Your task to perform on an android device: turn notification dots on Image 0: 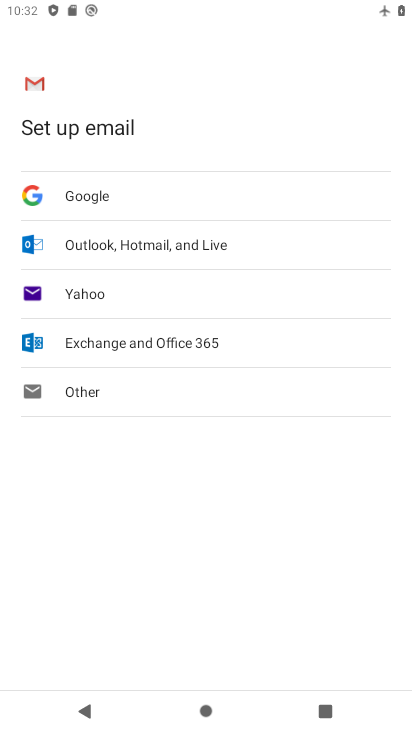
Step 0: press home button
Your task to perform on an android device: turn notification dots on Image 1: 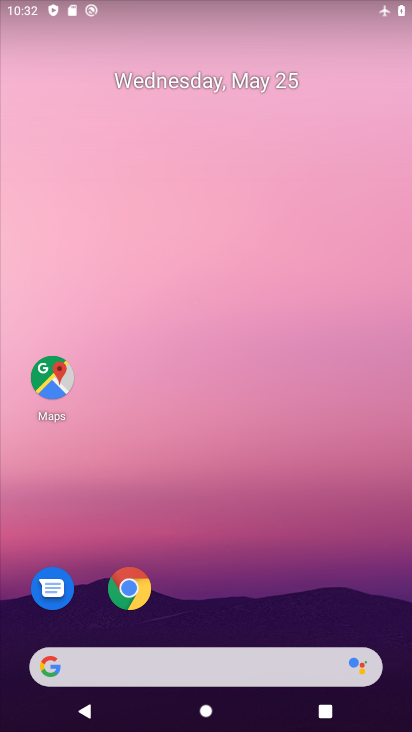
Step 1: drag from (199, 496) to (242, 168)
Your task to perform on an android device: turn notification dots on Image 2: 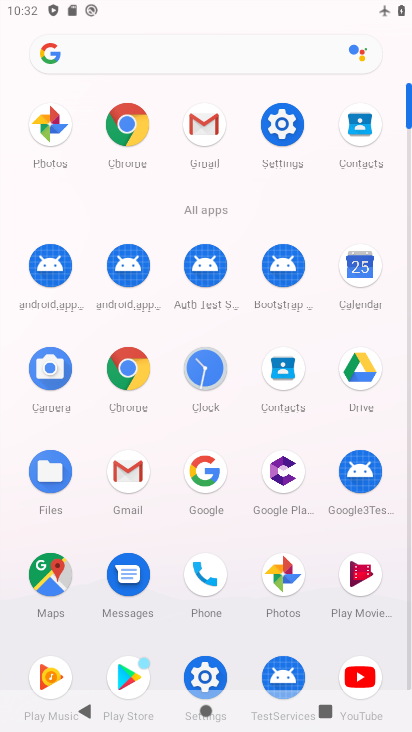
Step 2: click (287, 139)
Your task to perform on an android device: turn notification dots on Image 3: 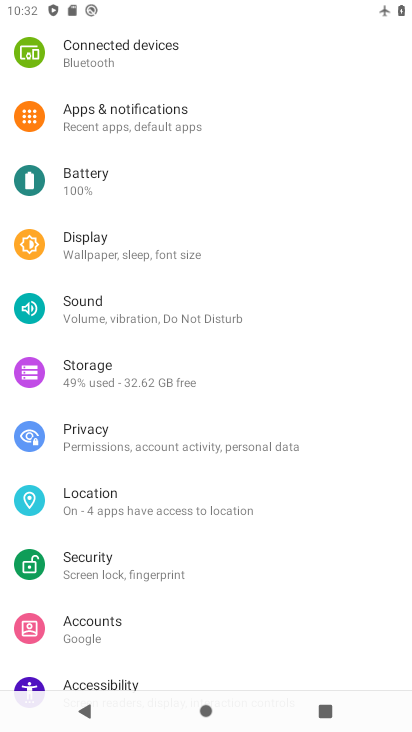
Step 3: click (175, 118)
Your task to perform on an android device: turn notification dots on Image 4: 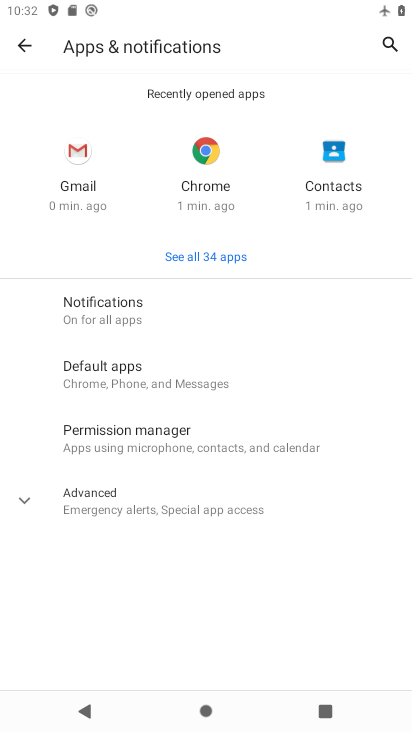
Step 4: click (123, 312)
Your task to perform on an android device: turn notification dots on Image 5: 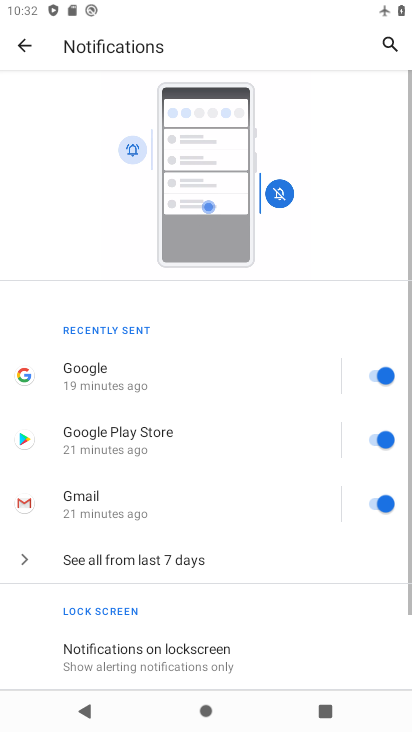
Step 5: drag from (201, 615) to (304, 137)
Your task to perform on an android device: turn notification dots on Image 6: 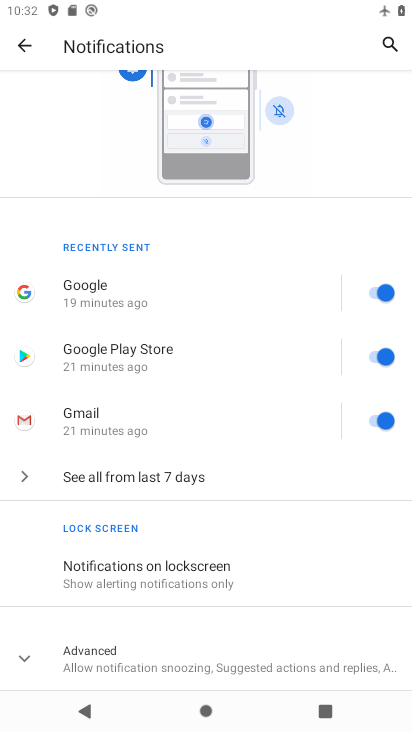
Step 6: click (135, 649)
Your task to perform on an android device: turn notification dots on Image 7: 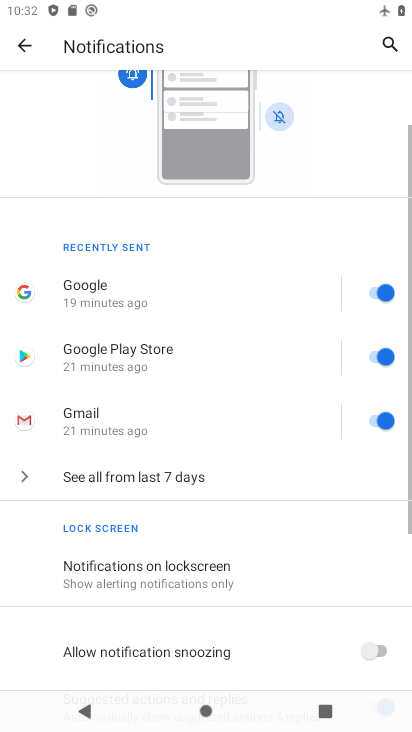
Step 7: task complete